Your task to perform on an android device: Set the phone to "Do not disturb". Image 0: 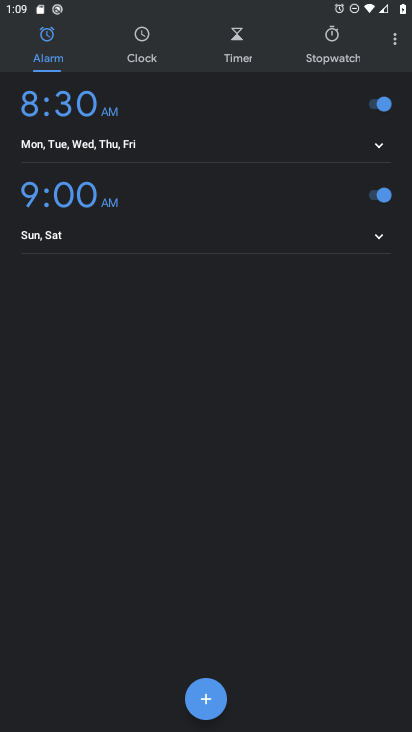
Step 0: press home button
Your task to perform on an android device: Set the phone to "Do not disturb". Image 1: 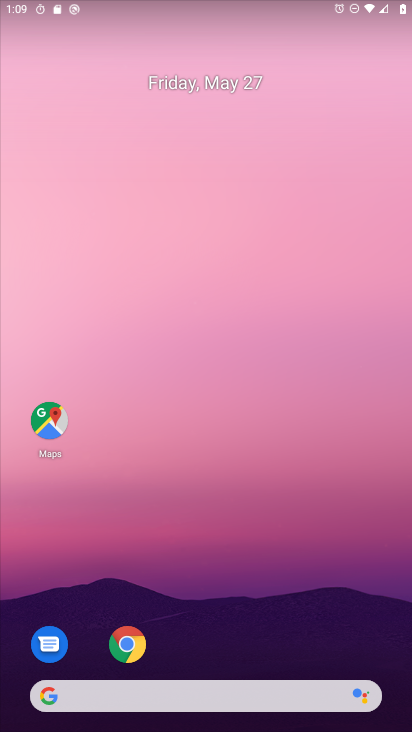
Step 1: drag from (234, 613) to (230, 149)
Your task to perform on an android device: Set the phone to "Do not disturb". Image 2: 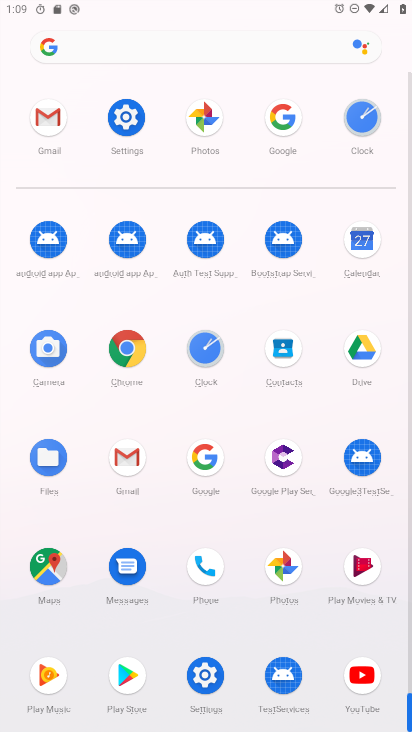
Step 2: click (128, 128)
Your task to perform on an android device: Set the phone to "Do not disturb". Image 3: 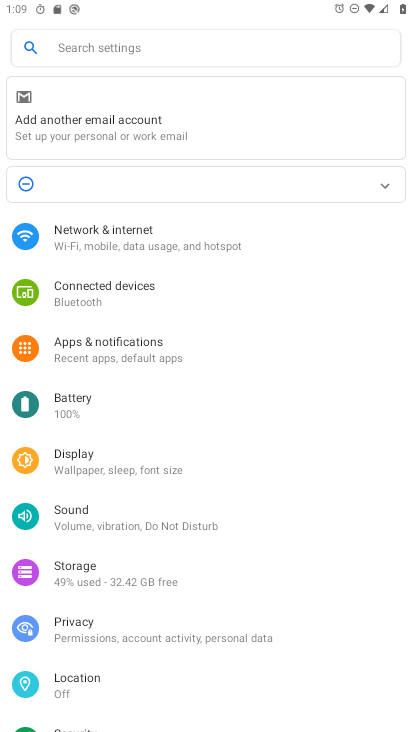
Step 3: click (121, 508)
Your task to perform on an android device: Set the phone to "Do not disturb". Image 4: 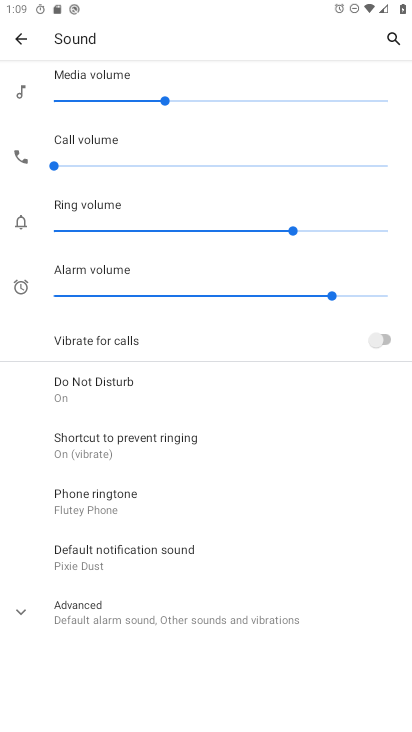
Step 4: click (122, 388)
Your task to perform on an android device: Set the phone to "Do not disturb". Image 5: 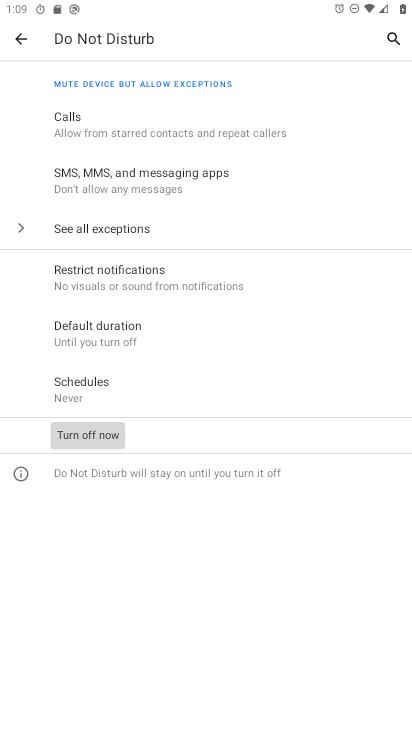
Step 5: task complete